Your task to perform on an android device: move a message to another label in the gmail app Image 0: 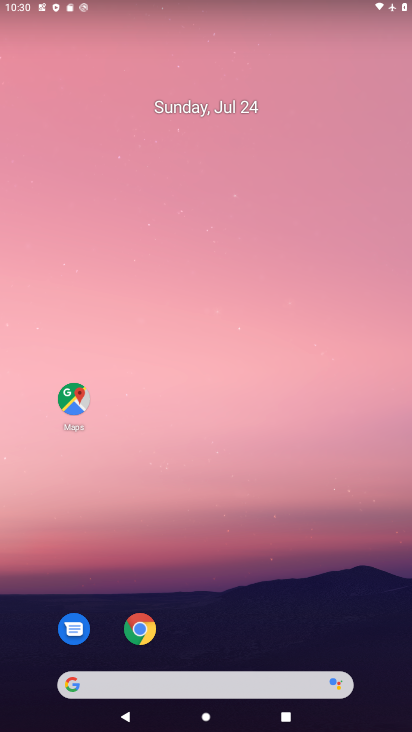
Step 0: drag from (221, 638) to (182, 167)
Your task to perform on an android device: move a message to another label in the gmail app Image 1: 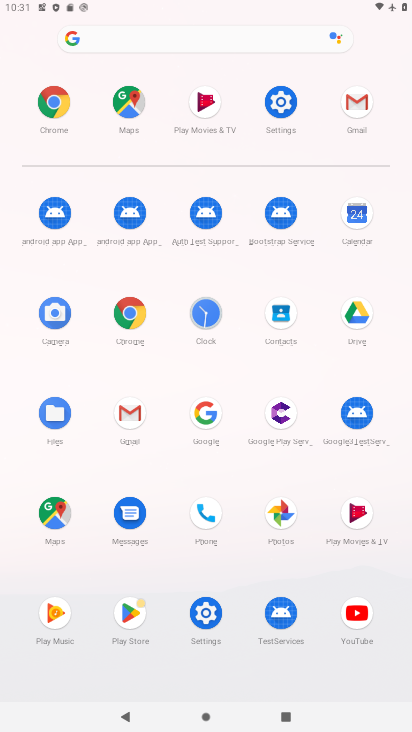
Step 1: click (359, 114)
Your task to perform on an android device: move a message to another label in the gmail app Image 2: 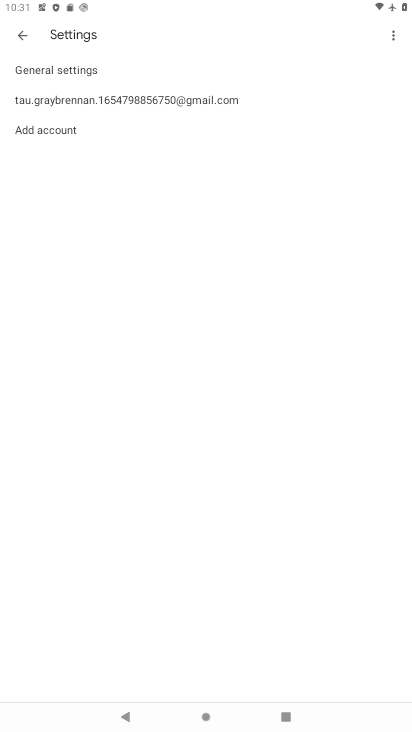
Step 2: task complete